Your task to perform on an android device: Show me popular videos on Youtube Image 0: 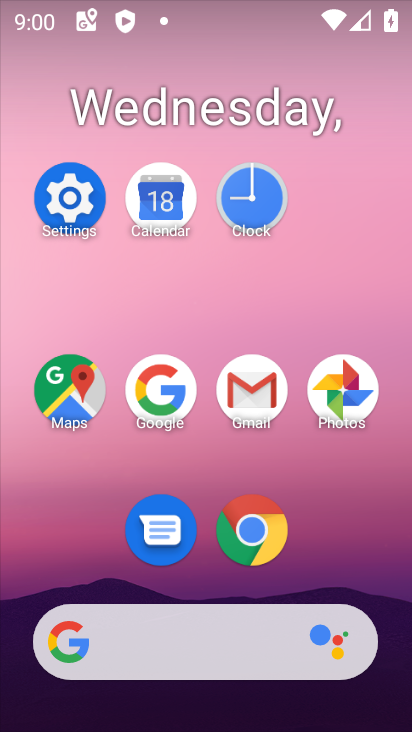
Step 0: drag from (346, 423) to (318, 157)
Your task to perform on an android device: Show me popular videos on Youtube Image 1: 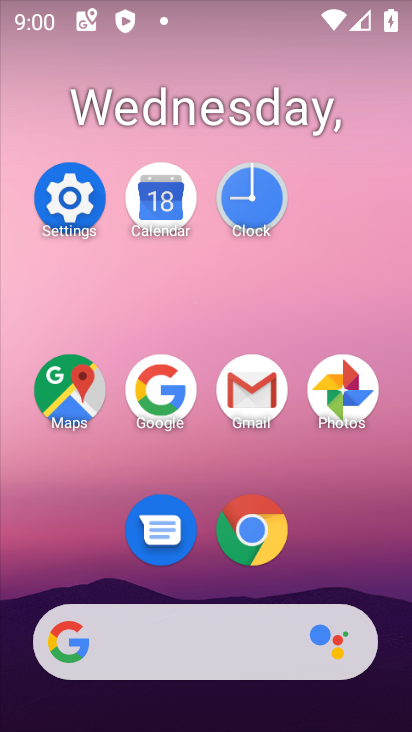
Step 1: drag from (350, 465) to (323, 114)
Your task to perform on an android device: Show me popular videos on Youtube Image 2: 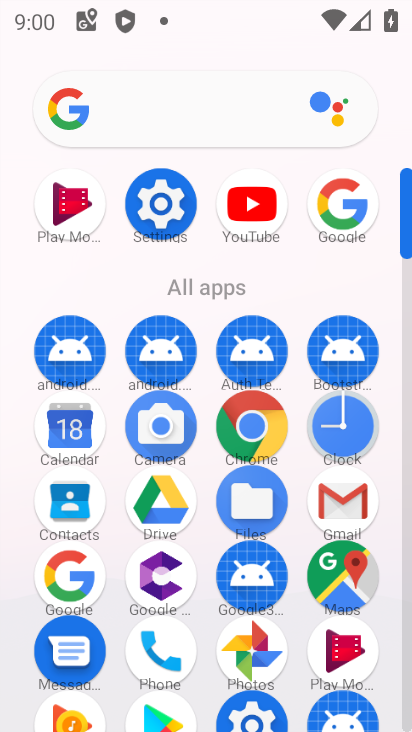
Step 2: click (277, 221)
Your task to perform on an android device: Show me popular videos on Youtube Image 3: 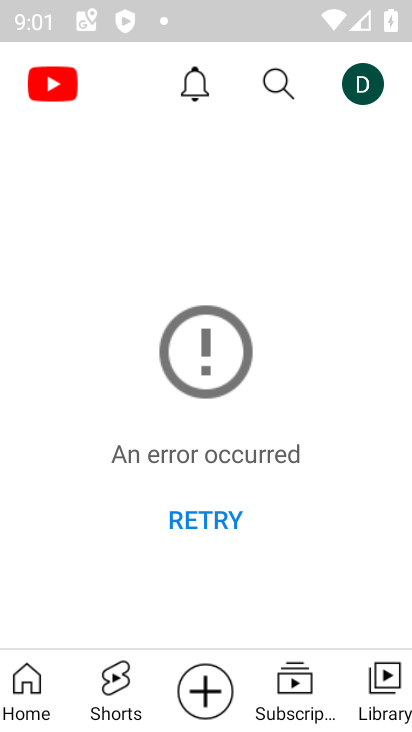
Step 3: task complete